Your task to perform on an android device: toggle data saver in the chrome app Image 0: 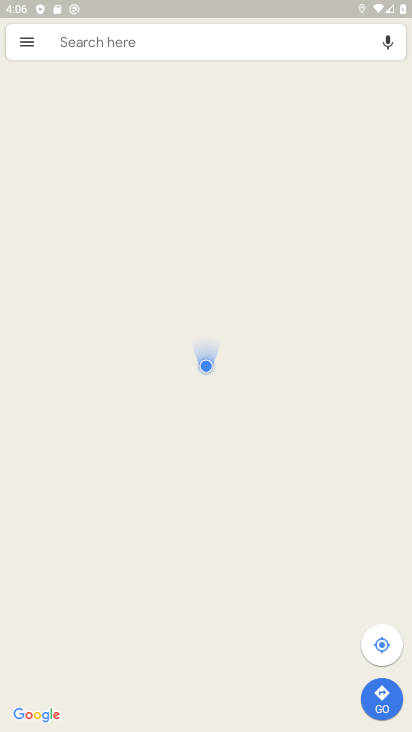
Step 0: press home button
Your task to perform on an android device: toggle data saver in the chrome app Image 1: 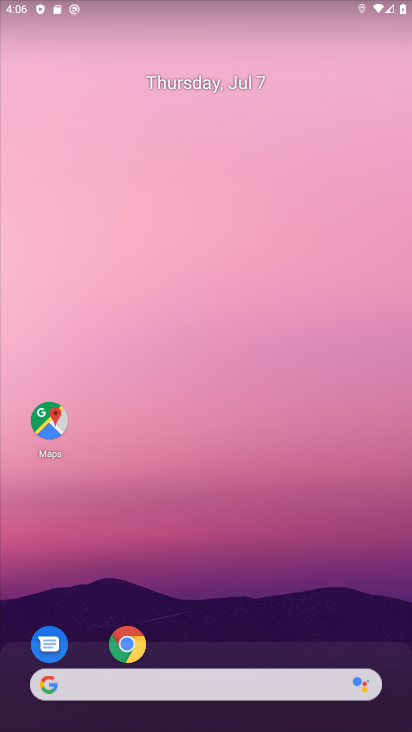
Step 1: drag from (195, 587) to (221, 3)
Your task to perform on an android device: toggle data saver in the chrome app Image 2: 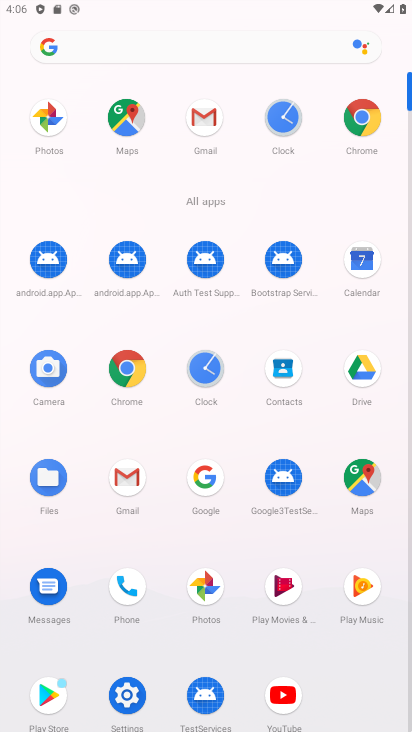
Step 2: click (134, 377)
Your task to perform on an android device: toggle data saver in the chrome app Image 3: 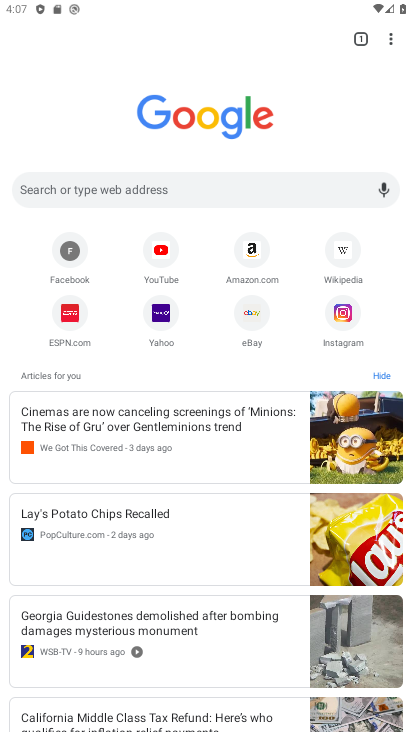
Step 3: click (396, 32)
Your task to perform on an android device: toggle data saver in the chrome app Image 4: 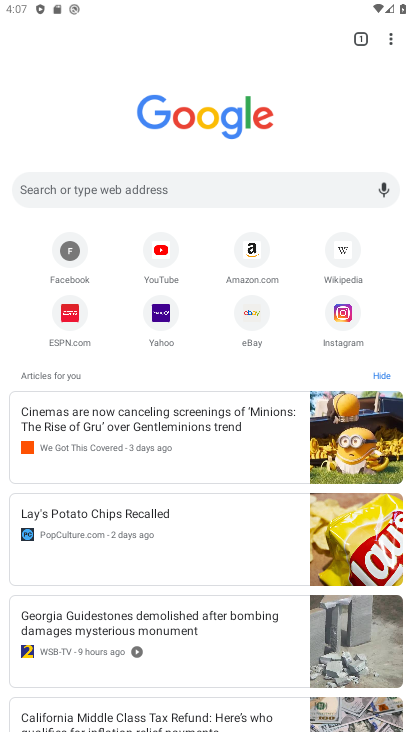
Step 4: click (391, 43)
Your task to perform on an android device: toggle data saver in the chrome app Image 5: 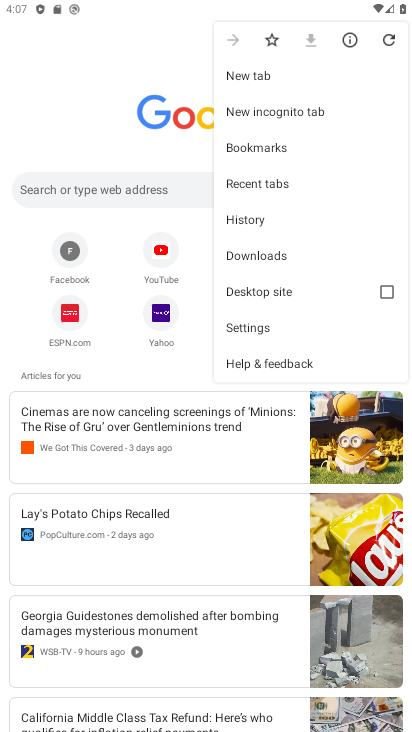
Step 5: click (251, 324)
Your task to perform on an android device: toggle data saver in the chrome app Image 6: 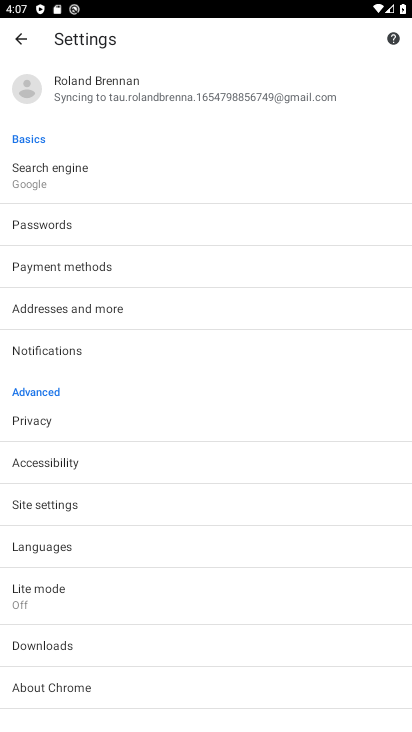
Step 6: click (61, 603)
Your task to perform on an android device: toggle data saver in the chrome app Image 7: 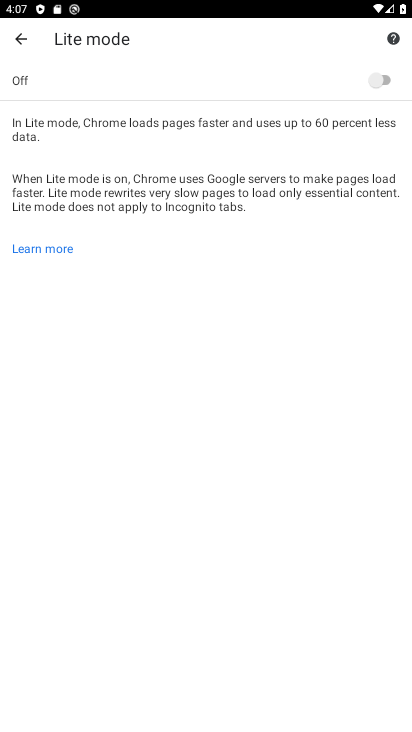
Step 7: click (377, 77)
Your task to perform on an android device: toggle data saver in the chrome app Image 8: 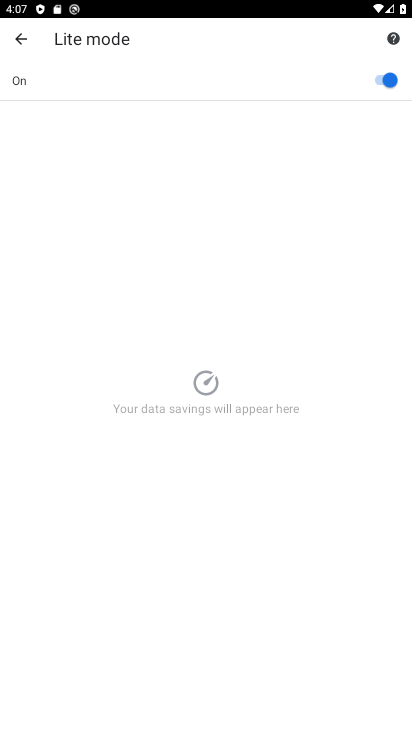
Step 8: task complete